Your task to perform on an android device: install app "Spotify" Image 0: 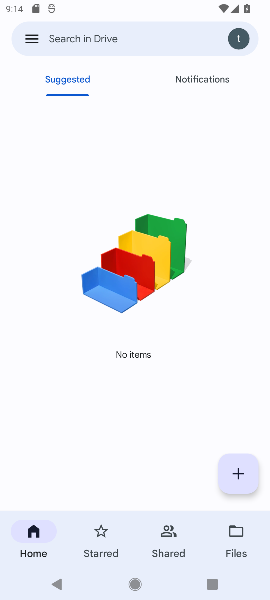
Step 0: press home button
Your task to perform on an android device: install app "Spotify" Image 1: 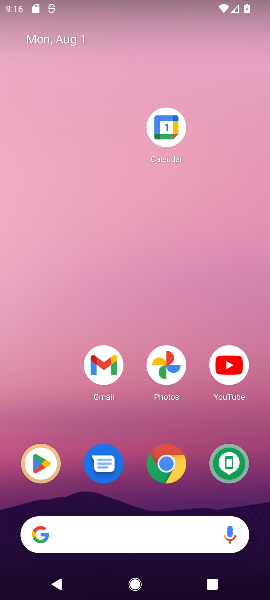
Step 1: task complete